Your task to perform on an android device: What is the capital of the United Kingdom? Image 0: 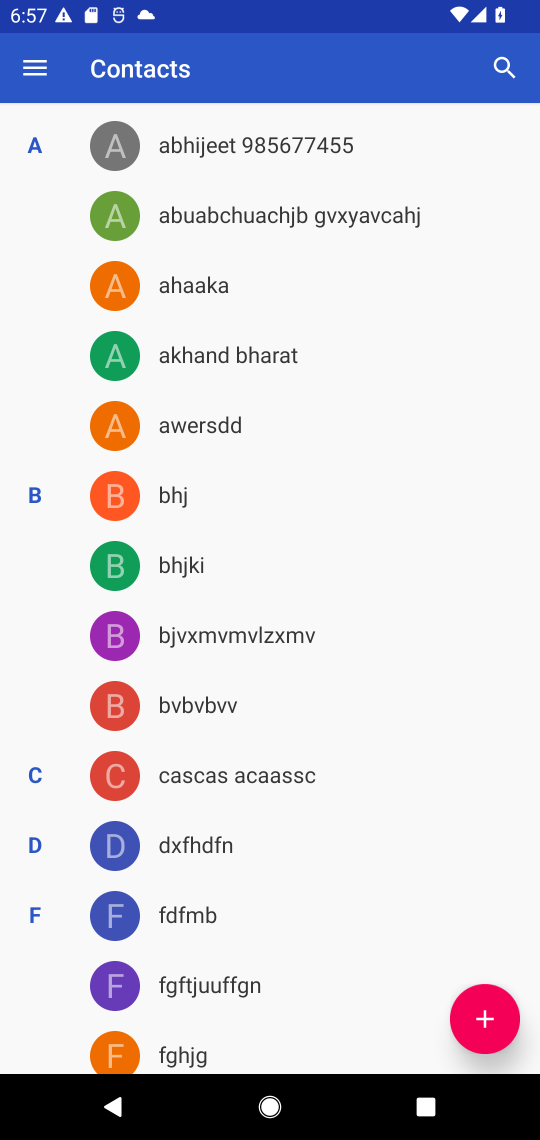
Step 0: press home button
Your task to perform on an android device: What is the capital of the United Kingdom? Image 1: 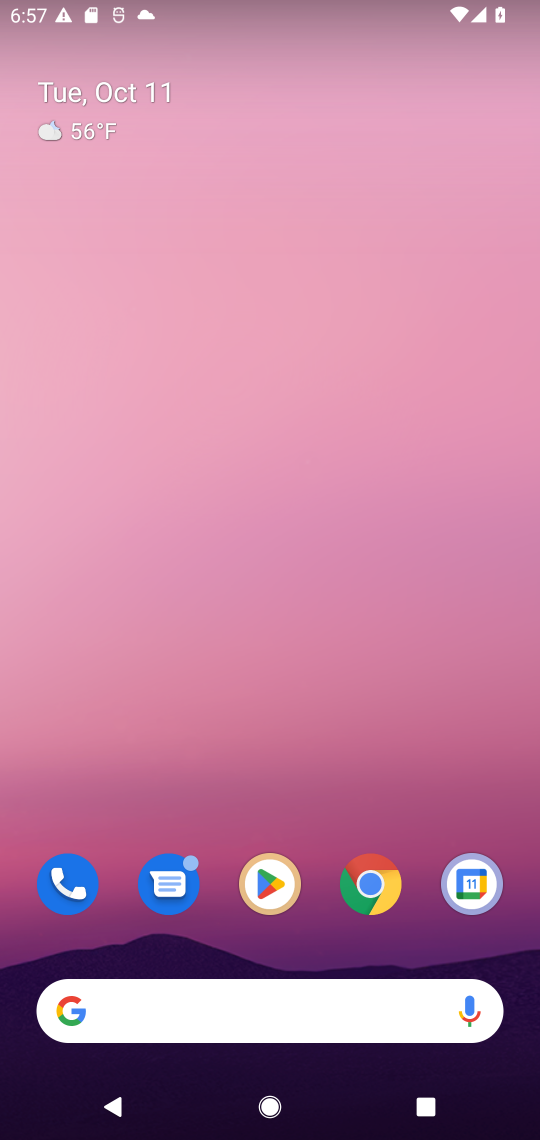
Step 1: drag from (334, 906) to (332, 66)
Your task to perform on an android device: What is the capital of the United Kingdom? Image 2: 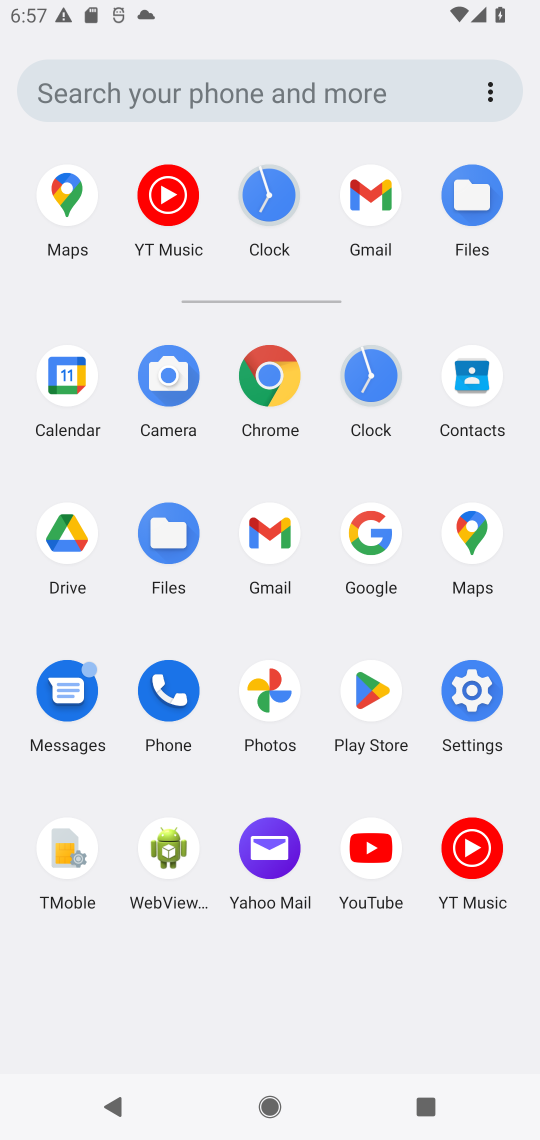
Step 2: click (270, 377)
Your task to perform on an android device: What is the capital of the United Kingdom? Image 3: 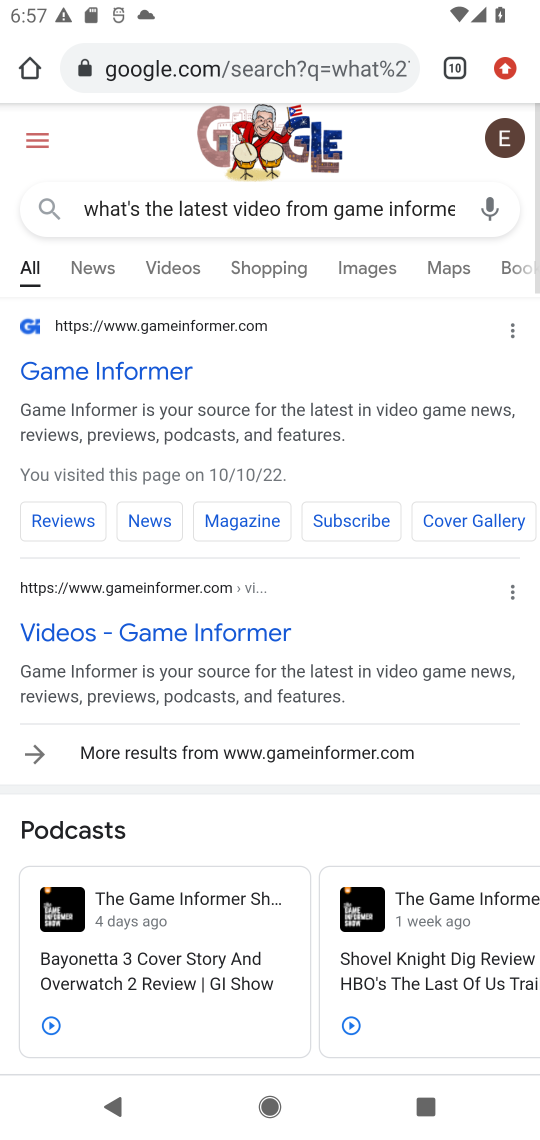
Step 3: click (390, 219)
Your task to perform on an android device: What is the capital of the United Kingdom? Image 4: 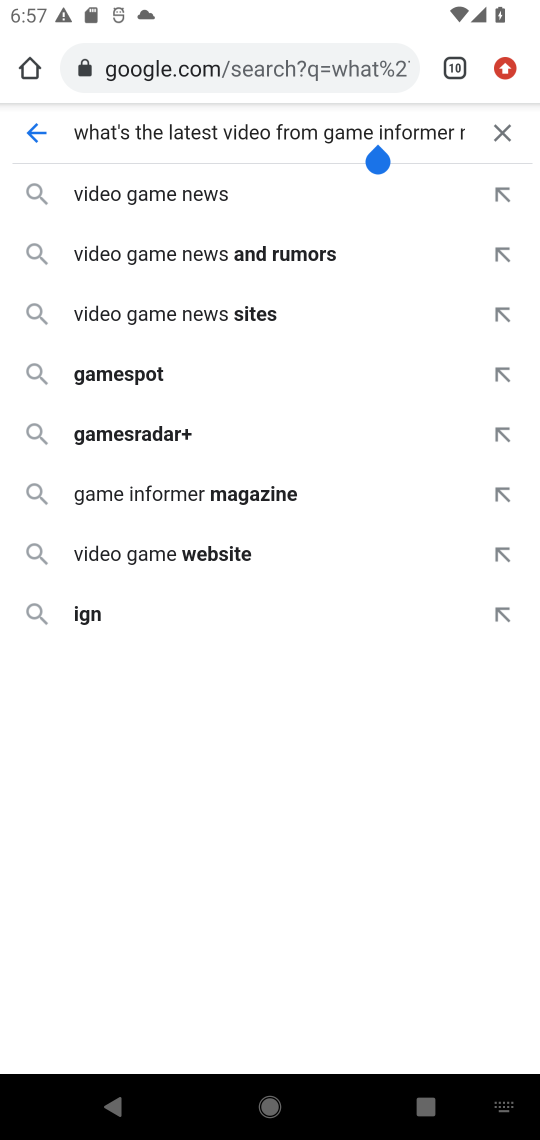
Step 4: click (504, 127)
Your task to perform on an android device: What is the capital of the United Kingdom? Image 5: 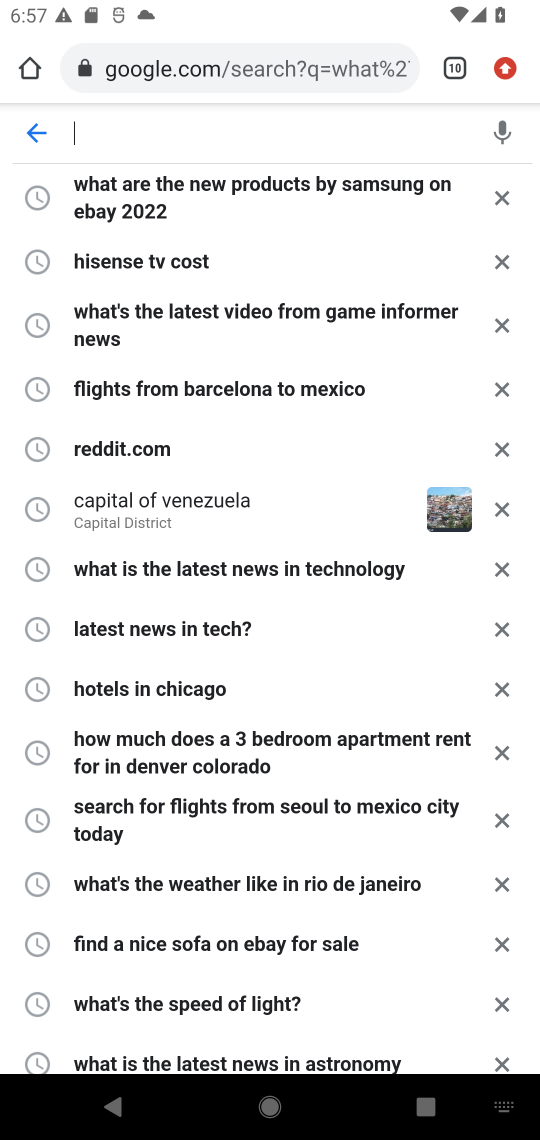
Step 5: type "What is the capital of the United Kingdom?"
Your task to perform on an android device: What is the capital of the United Kingdom? Image 6: 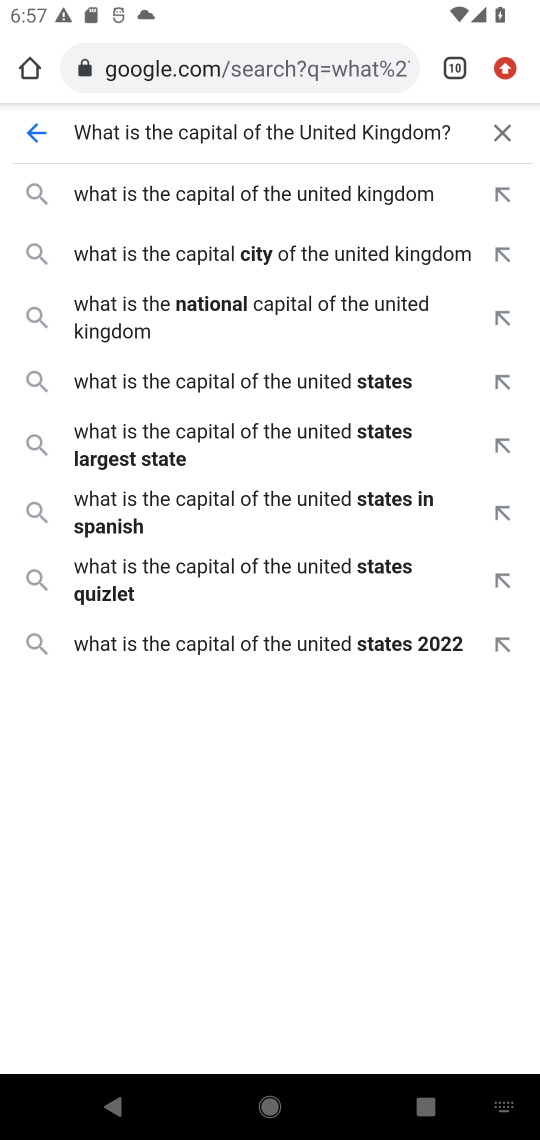
Step 6: click (361, 190)
Your task to perform on an android device: What is the capital of the United Kingdom? Image 7: 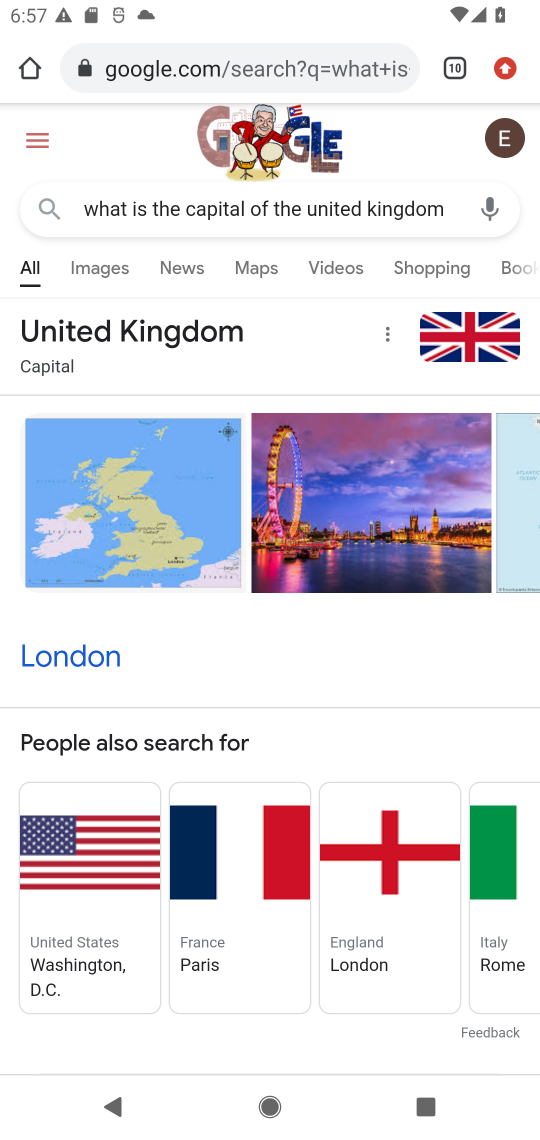
Step 7: task complete